Your task to perform on an android device: toggle wifi Image 0: 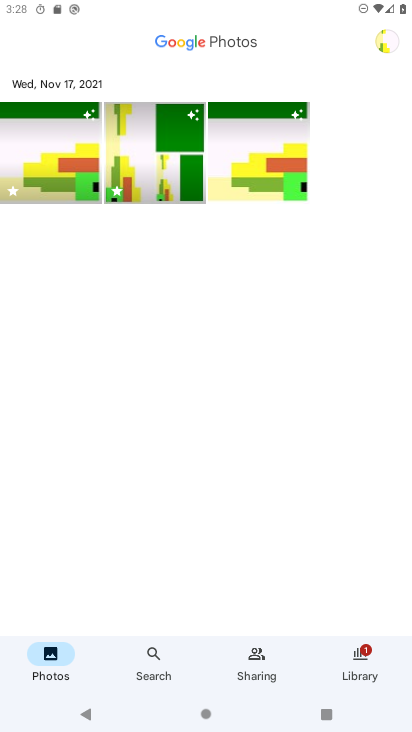
Step 0: press home button
Your task to perform on an android device: toggle wifi Image 1: 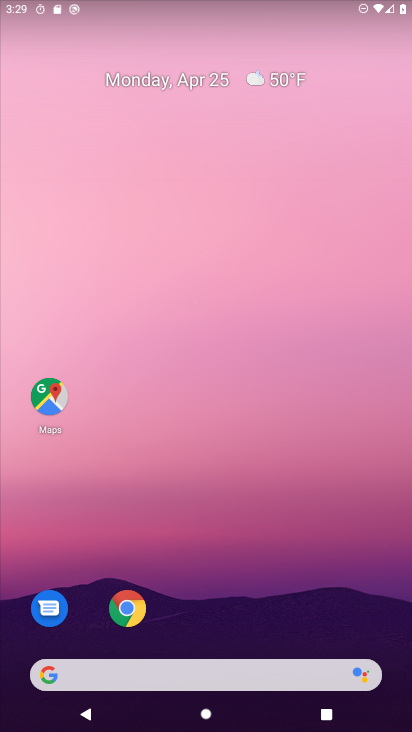
Step 1: drag from (200, 608) to (203, 236)
Your task to perform on an android device: toggle wifi Image 2: 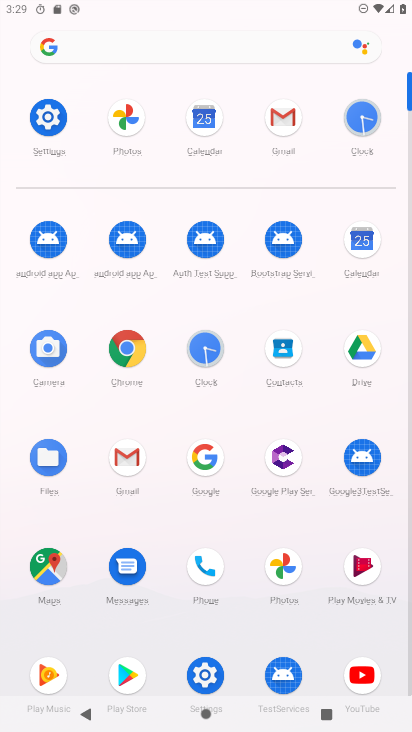
Step 2: click (64, 110)
Your task to perform on an android device: toggle wifi Image 3: 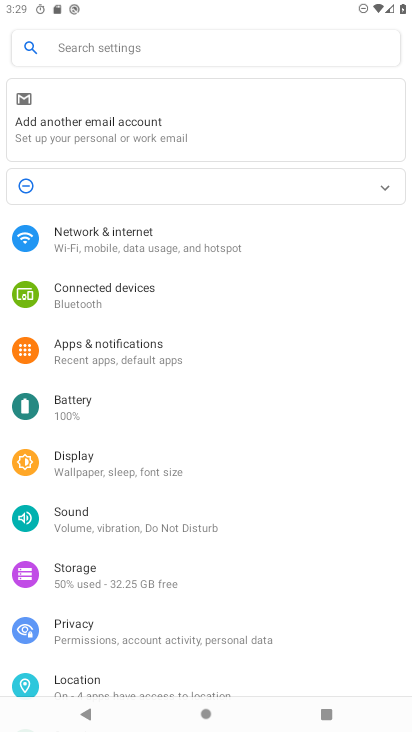
Step 3: click (122, 236)
Your task to perform on an android device: toggle wifi Image 4: 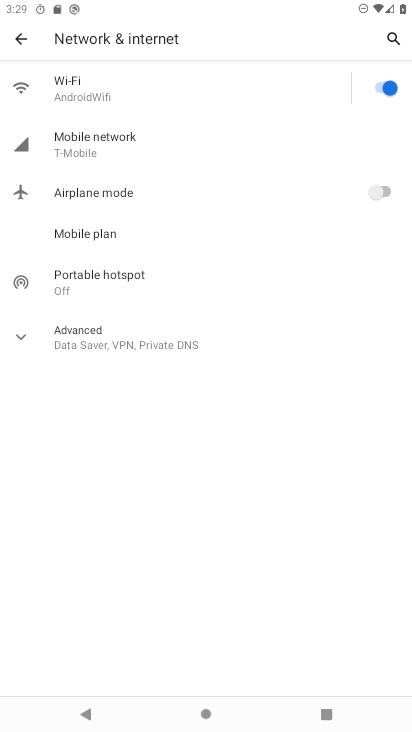
Step 4: click (376, 86)
Your task to perform on an android device: toggle wifi Image 5: 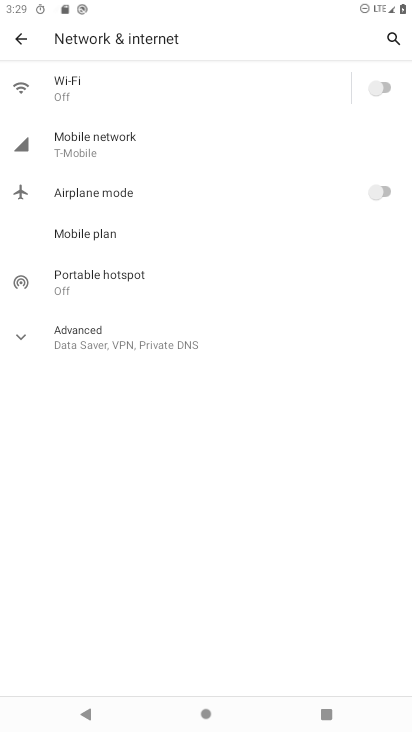
Step 5: task complete